Your task to perform on an android device: turn pop-ups off in chrome Image 0: 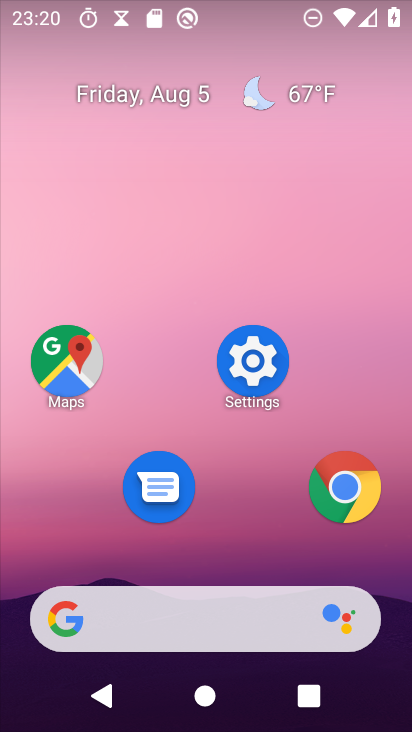
Step 0: click (342, 486)
Your task to perform on an android device: turn pop-ups off in chrome Image 1: 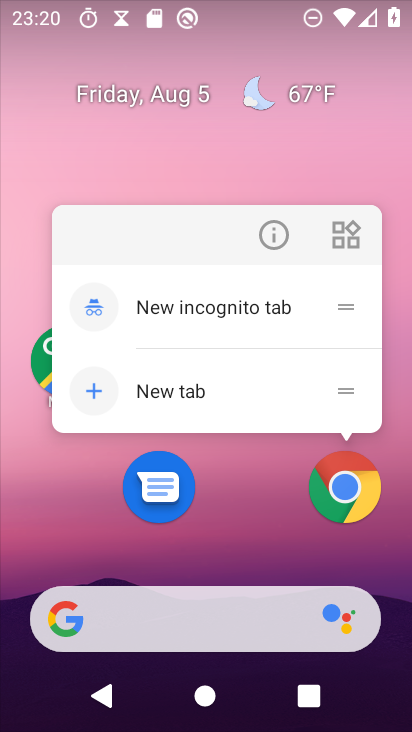
Step 1: click (342, 486)
Your task to perform on an android device: turn pop-ups off in chrome Image 2: 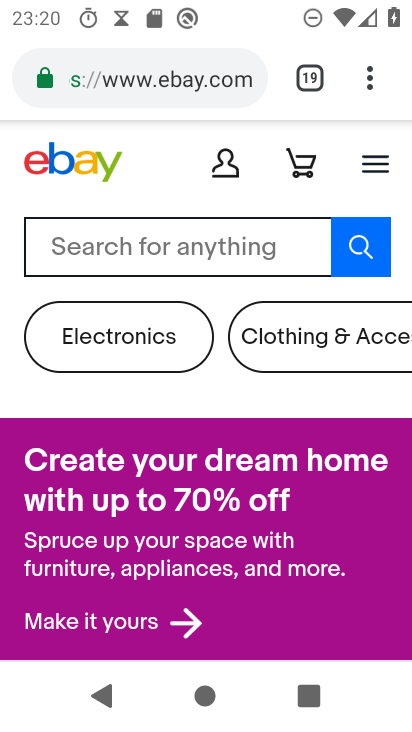
Step 2: drag from (371, 79) to (212, 558)
Your task to perform on an android device: turn pop-ups off in chrome Image 3: 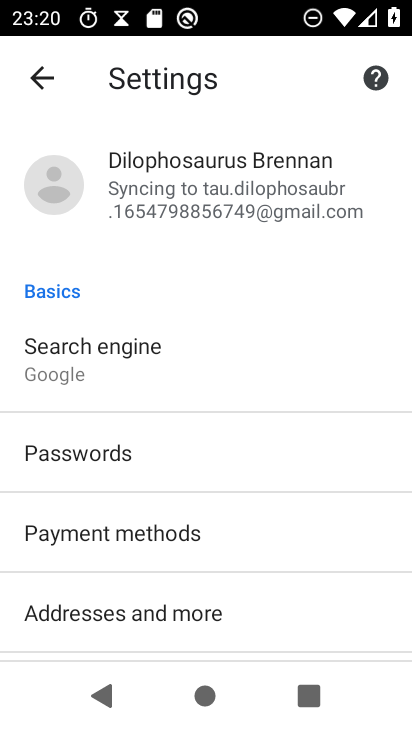
Step 3: drag from (219, 633) to (348, 80)
Your task to perform on an android device: turn pop-ups off in chrome Image 4: 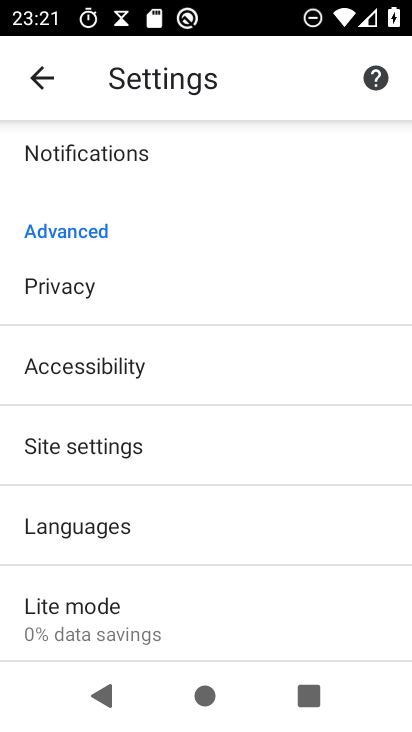
Step 4: click (160, 444)
Your task to perform on an android device: turn pop-ups off in chrome Image 5: 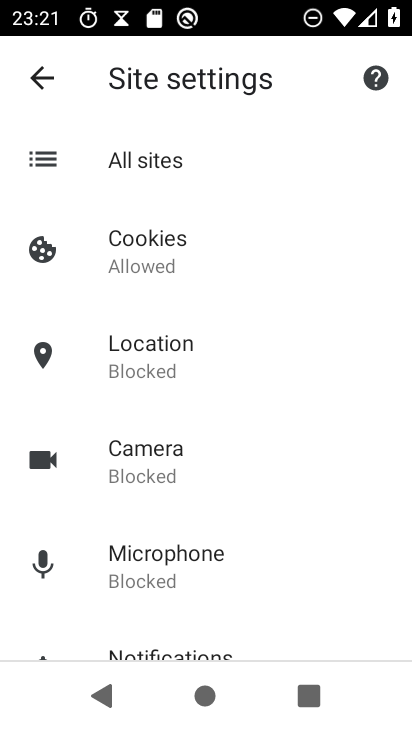
Step 5: drag from (256, 557) to (343, 188)
Your task to perform on an android device: turn pop-ups off in chrome Image 6: 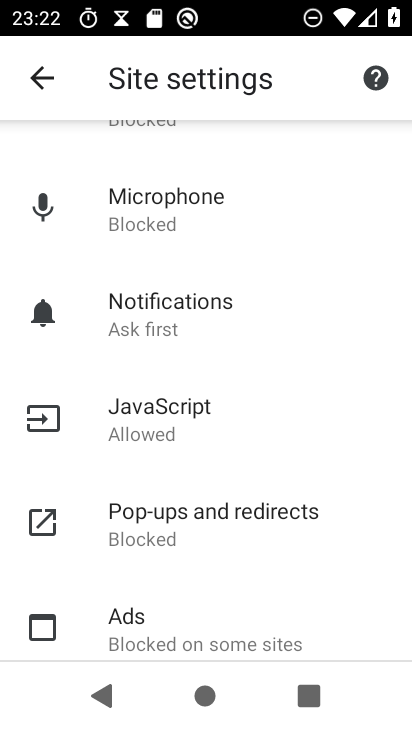
Step 6: click (190, 519)
Your task to perform on an android device: turn pop-ups off in chrome Image 7: 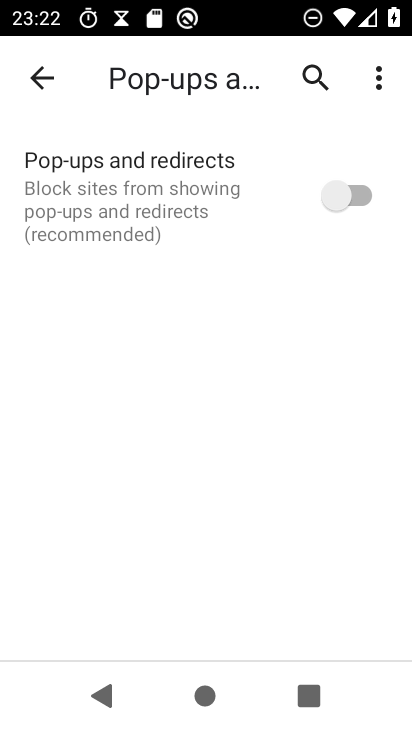
Step 7: task complete